Your task to perform on an android device: turn on translation in the chrome app Image 0: 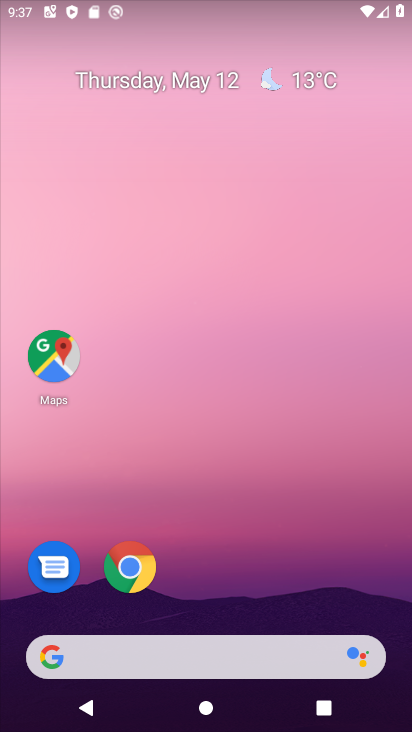
Step 0: click (142, 563)
Your task to perform on an android device: turn on translation in the chrome app Image 1: 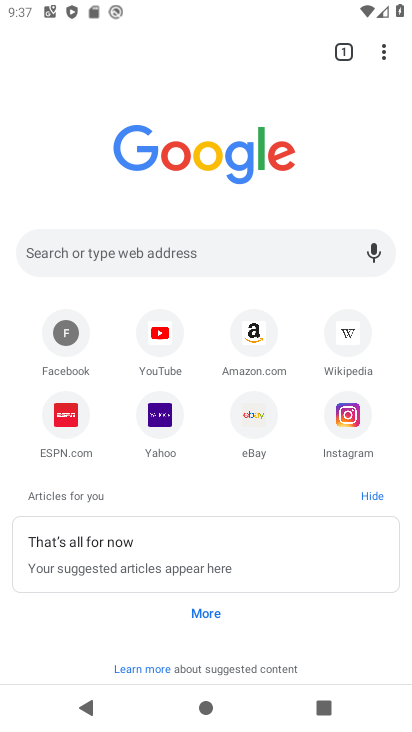
Step 1: drag from (388, 50) to (271, 434)
Your task to perform on an android device: turn on translation in the chrome app Image 2: 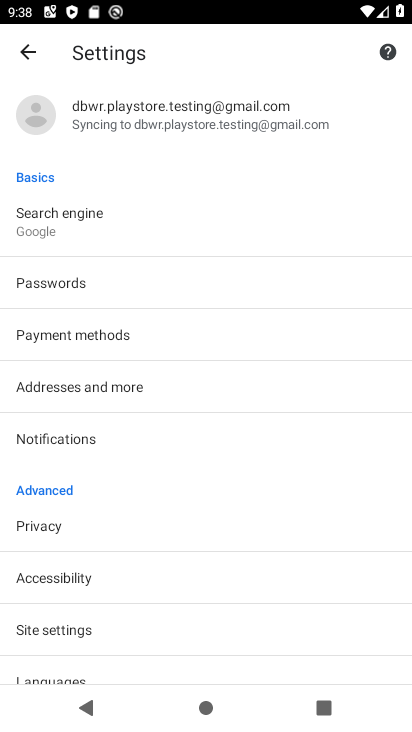
Step 2: drag from (202, 587) to (139, 313)
Your task to perform on an android device: turn on translation in the chrome app Image 3: 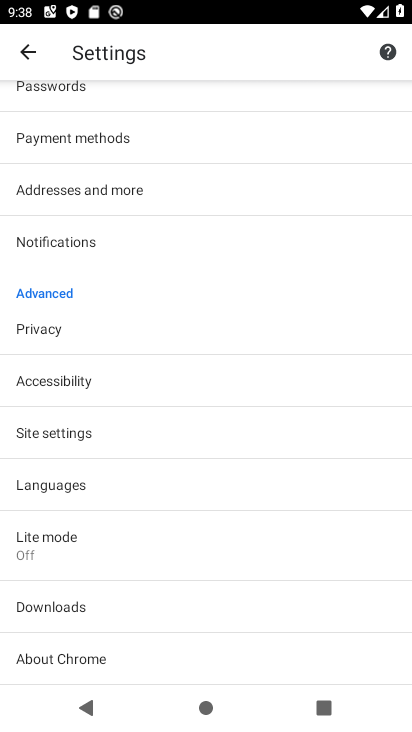
Step 3: click (118, 475)
Your task to perform on an android device: turn on translation in the chrome app Image 4: 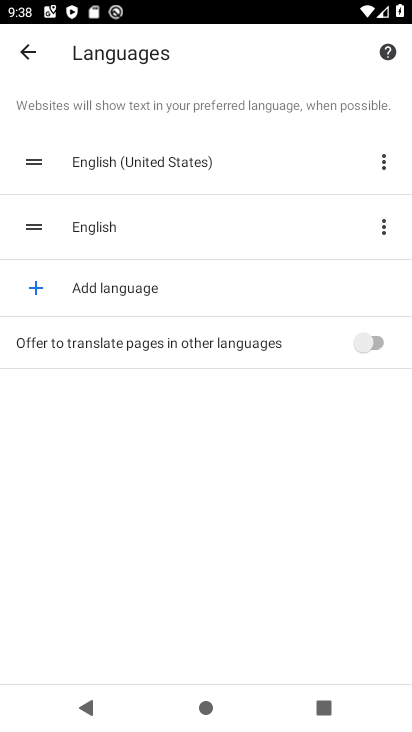
Step 4: click (383, 340)
Your task to perform on an android device: turn on translation in the chrome app Image 5: 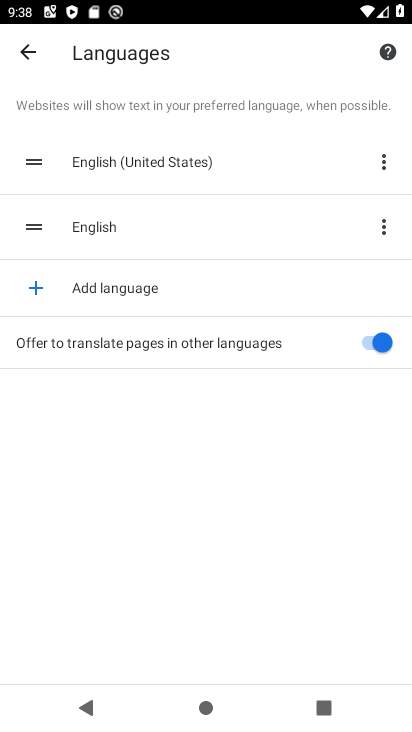
Step 5: task complete